Your task to perform on an android device: Is it going to rain today? Image 0: 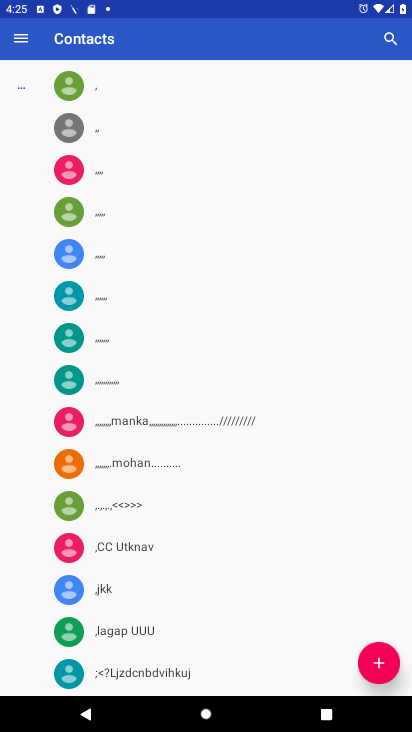
Step 0: press home button
Your task to perform on an android device: Is it going to rain today? Image 1: 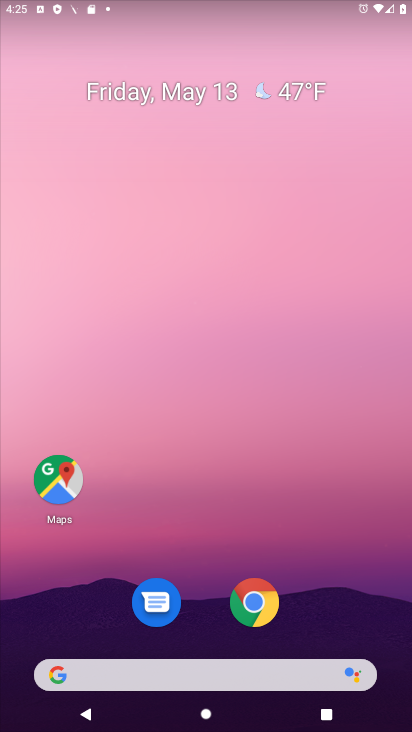
Step 1: drag from (196, 634) to (242, 194)
Your task to perform on an android device: Is it going to rain today? Image 2: 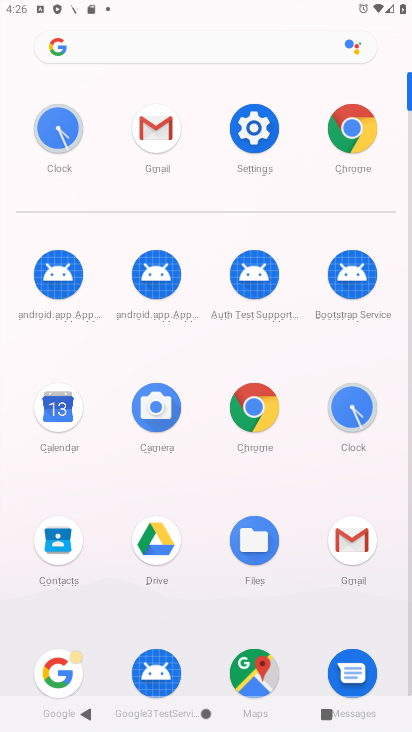
Step 2: click (64, 666)
Your task to perform on an android device: Is it going to rain today? Image 3: 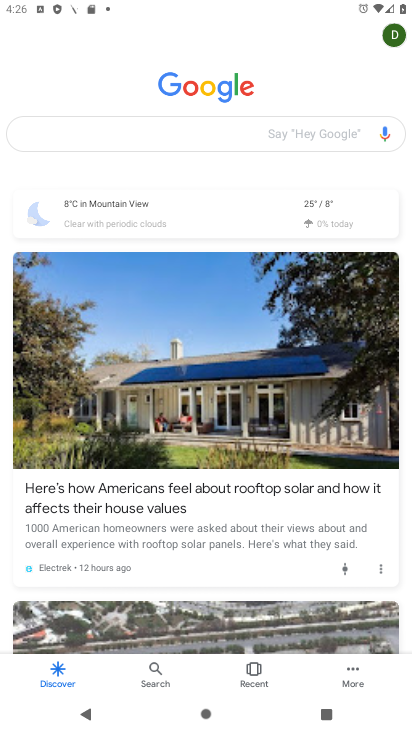
Step 3: drag from (131, 123) to (48, 123)
Your task to perform on an android device: Is it going to rain today? Image 4: 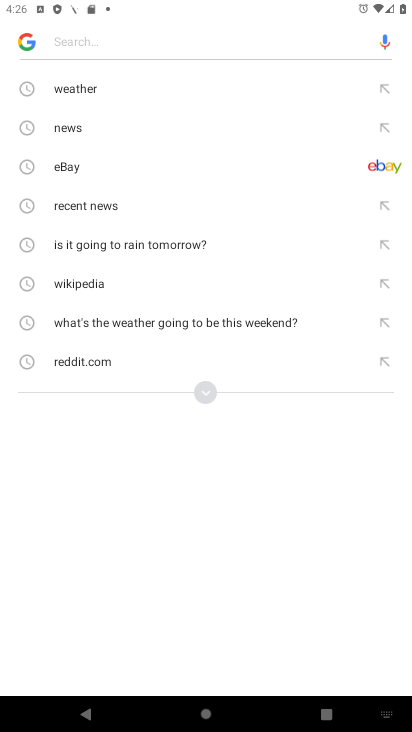
Step 4: click (99, 247)
Your task to perform on an android device: Is it going to rain today? Image 5: 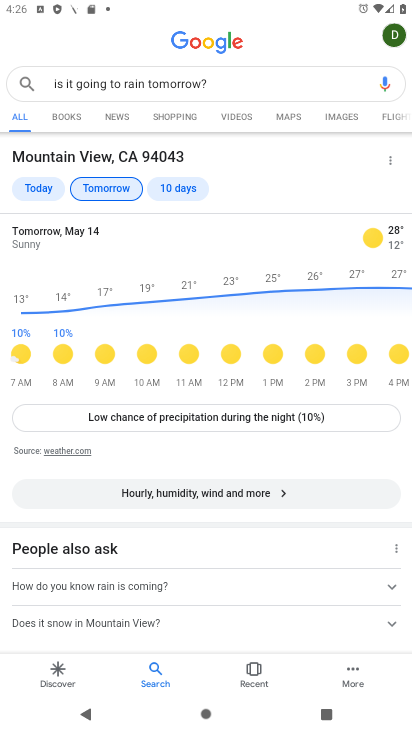
Step 5: click (206, 78)
Your task to perform on an android device: Is it going to rain today? Image 6: 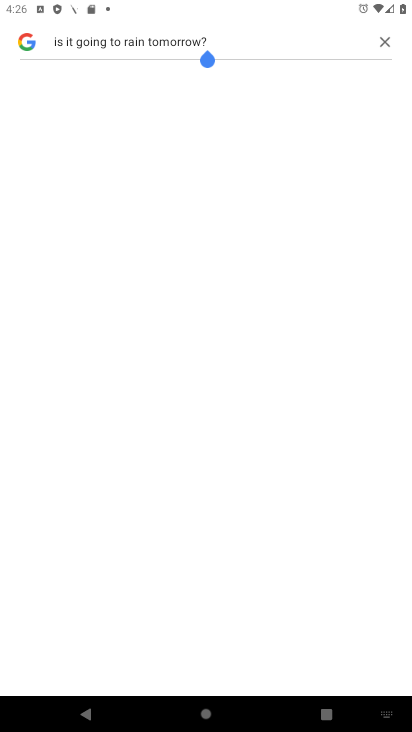
Step 6: click (213, 84)
Your task to perform on an android device: Is it going to rain today? Image 7: 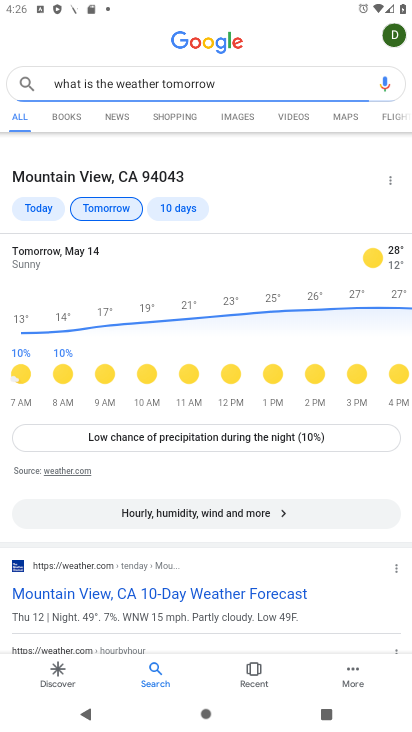
Step 7: click (295, 84)
Your task to perform on an android device: Is it going to rain today? Image 8: 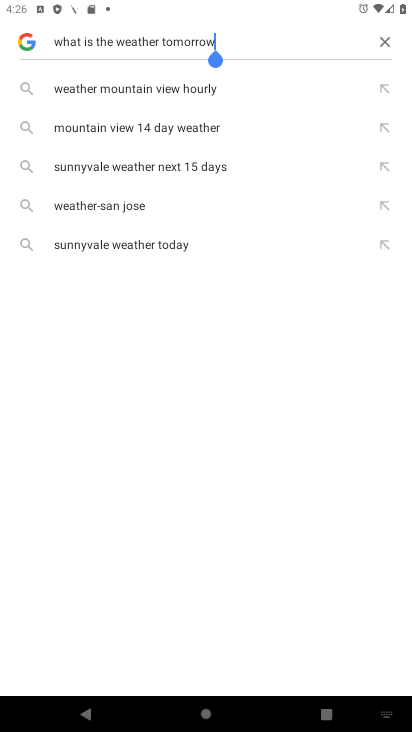
Step 8: click (382, 42)
Your task to perform on an android device: Is it going to rain today? Image 9: 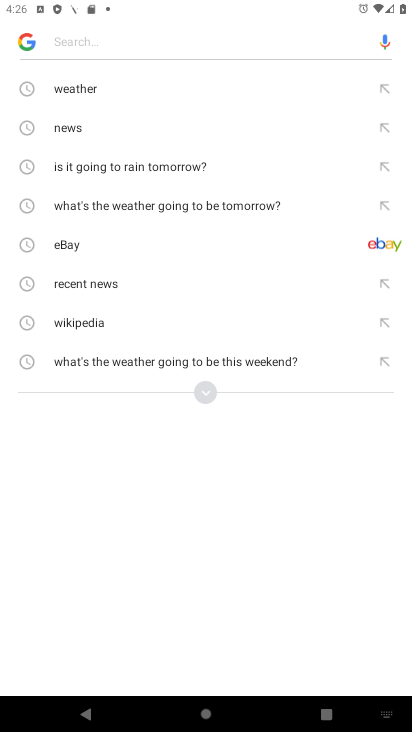
Step 9: type "is it going to rain today?"
Your task to perform on an android device: Is it going to rain today? Image 10: 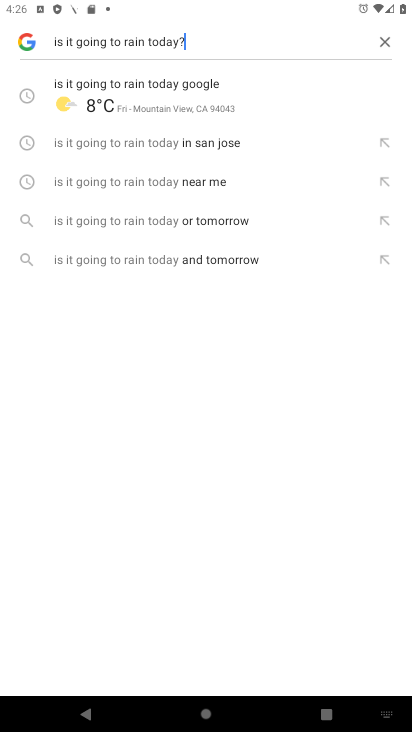
Step 10: click (137, 87)
Your task to perform on an android device: Is it going to rain today? Image 11: 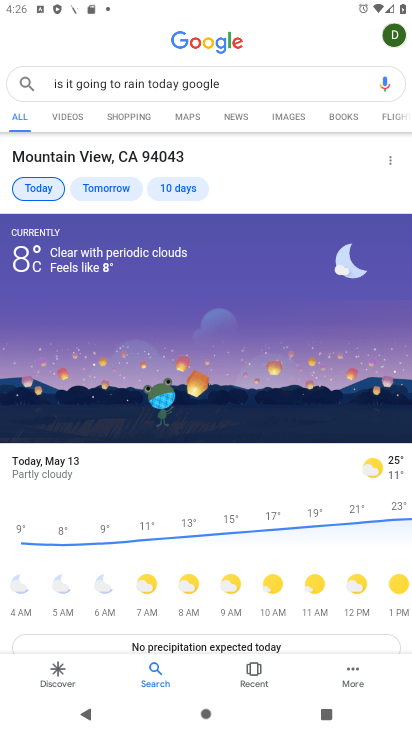
Step 11: drag from (259, 584) to (284, 269)
Your task to perform on an android device: Is it going to rain today? Image 12: 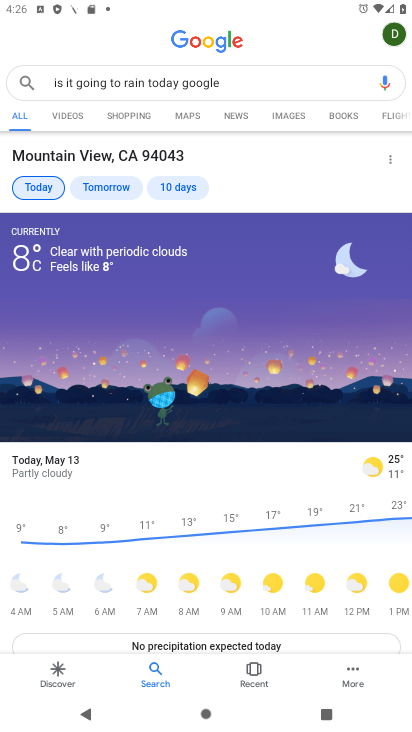
Step 12: click (241, 641)
Your task to perform on an android device: Is it going to rain today? Image 13: 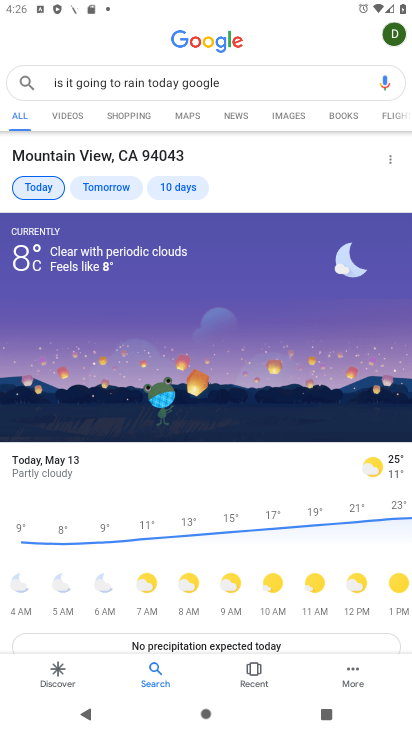
Step 13: click (229, 646)
Your task to perform on an android device: Is it going to rain today? Image 14: 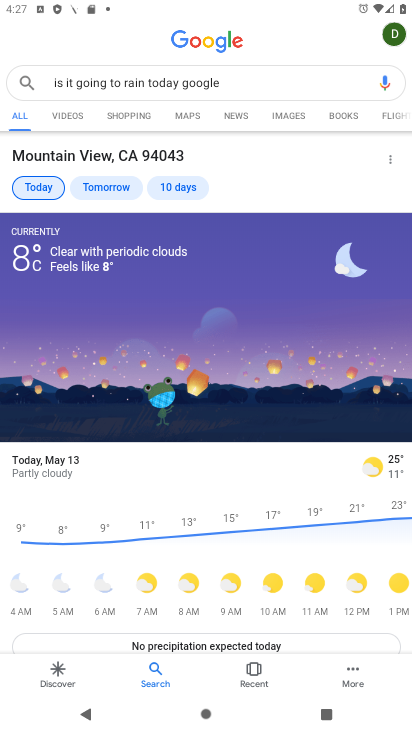
Step 14: task complete